Your task to perform on an android device: open a bookmark in the chrome app Image 0: 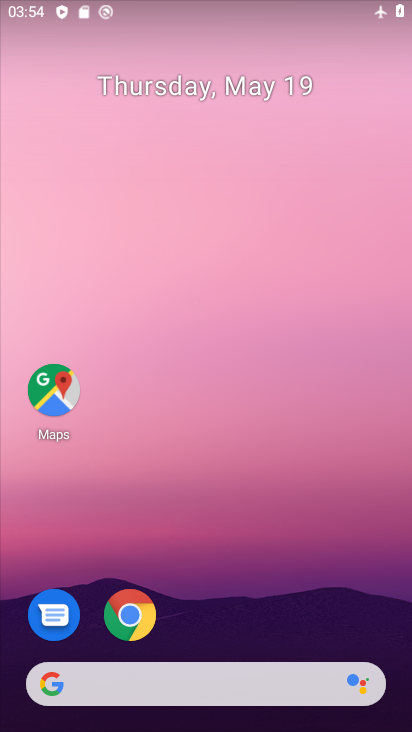
Step 0: click (133, 617)
Your task to perform on an android device: open a bookmark in the chrome app Image 1: 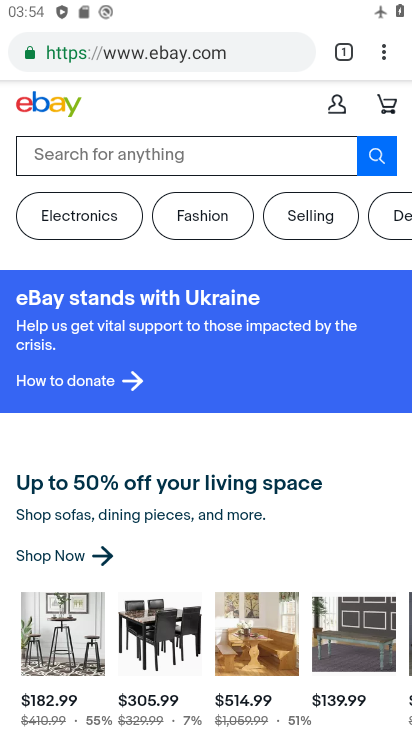
Step 1: click (386, 54)
Your task to perform on an android device: open a bookmark in the chrome app Image 2: 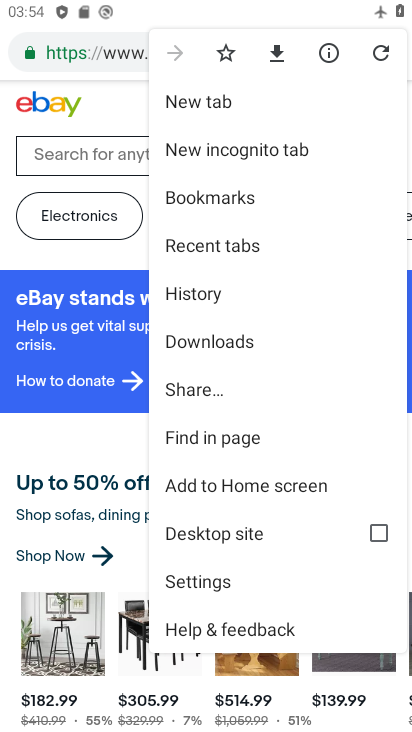
Step 2: click (193, 204)
Your task to perform on an android device: open a bookmark in the chrome app Image 3: 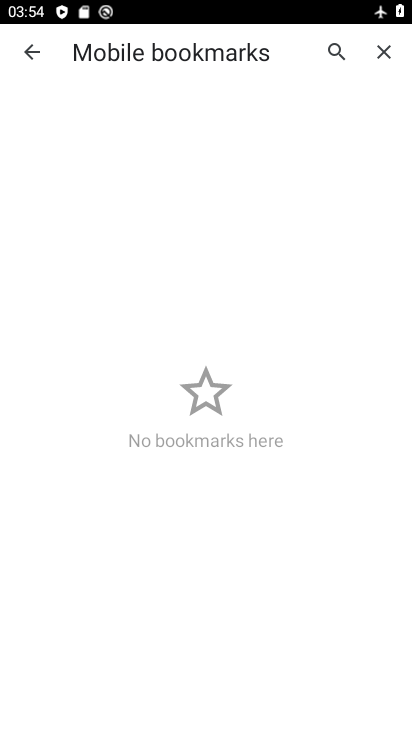
Step 3: task complete